Your task to perform on an android device: empty trash in google photos Image 0: 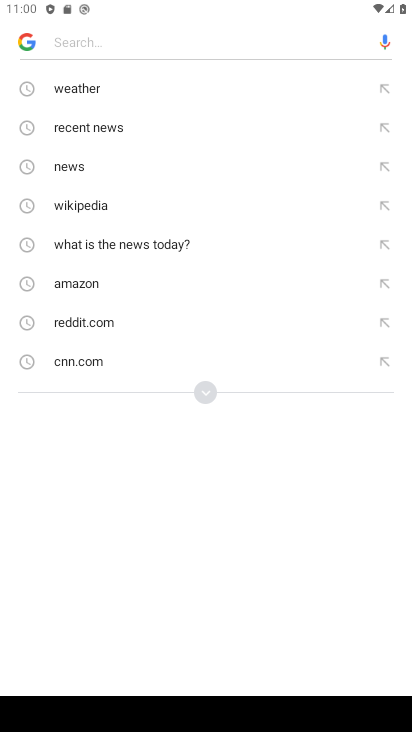
Step 0: press home button
Your task to perform on an android device: empty trash in google photos Image 1: 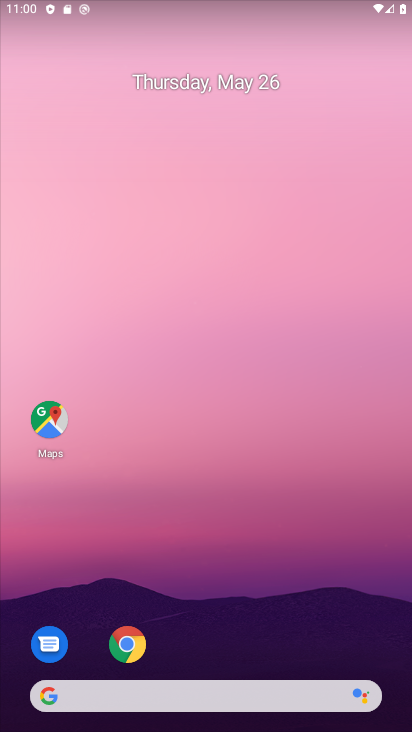
Step 1: drag from (132, 727) to (188, 50)
Your task to perform on an android device: empty trash in google photos Image 2: 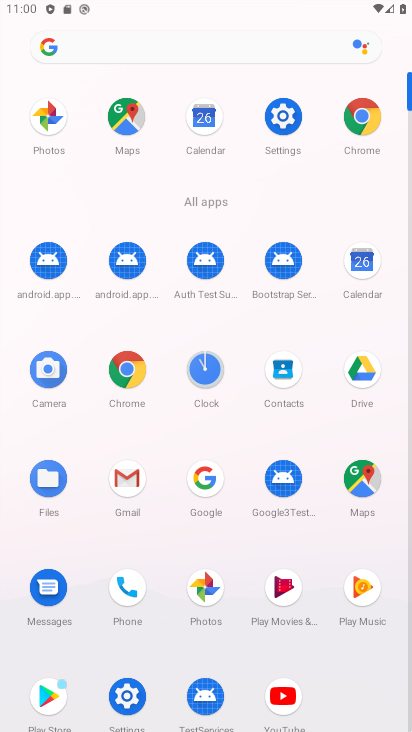
Step 2: click (207, 595)
Your task to perform on an android device: empty trash in google photos Image 3: 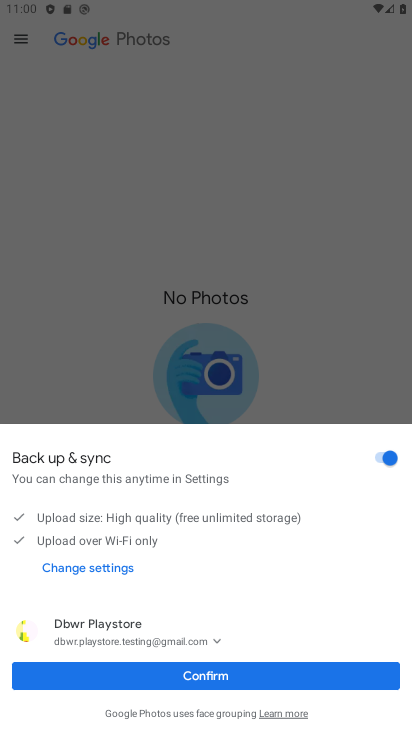
Step 3: click (233, 689)
Your task to perform on an android device: empty trash in google photos Image 4: 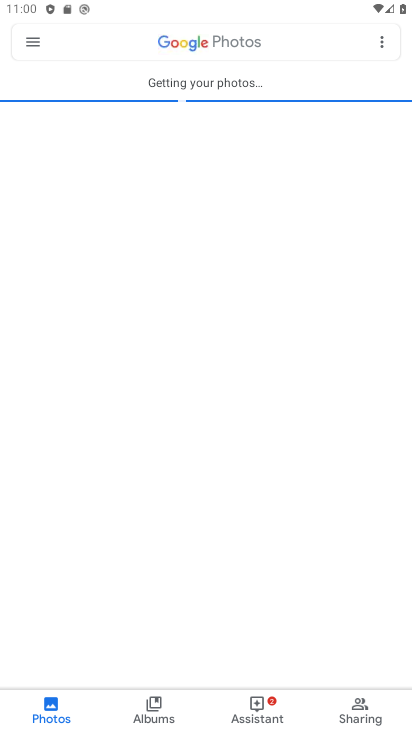
Step 4: click (22, 42)
Your task to perform on an android device: empty trash in google photos Image 5: 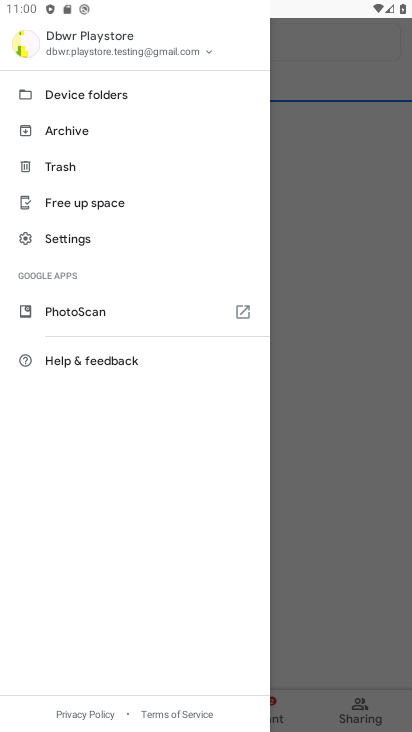
Step 5: click (53, 166)
Your task to perform on an android device: empty trash in google photos Image 6: 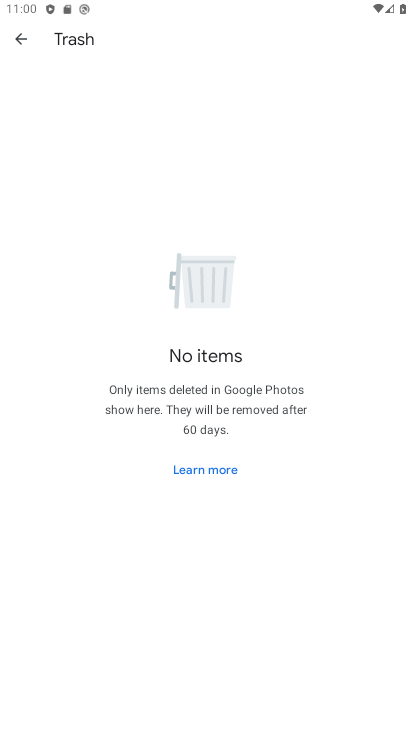
Step 6: task complete